Your task to perform on an android device: remove spam from my inbox in the gmail app Image 0: 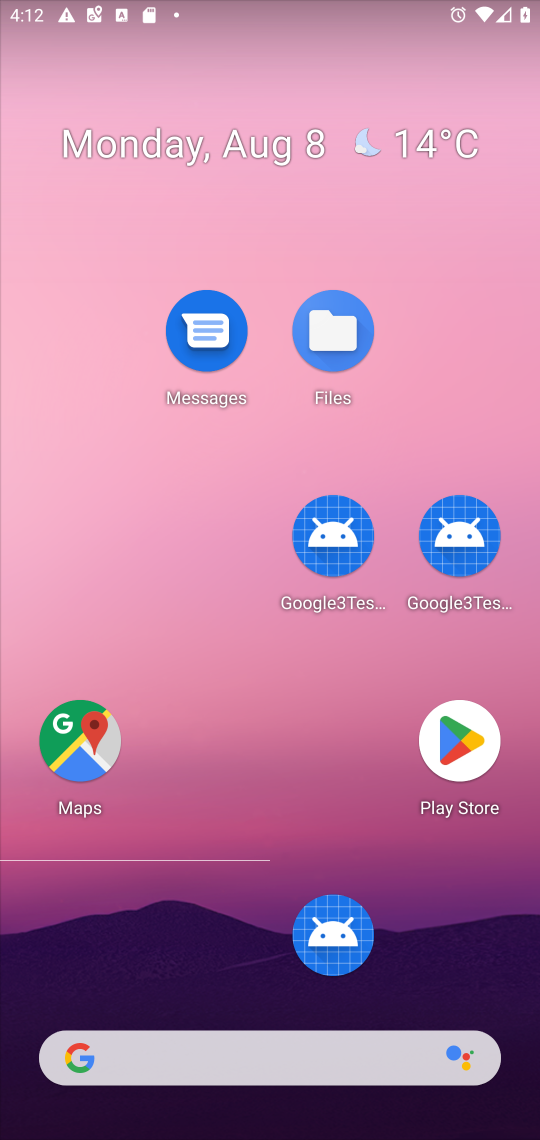
Step 0: drag from (316, 1045) to (358, 0)
Your task to perform on an android device: remove spam from my inbox in the gmail app Image 1: 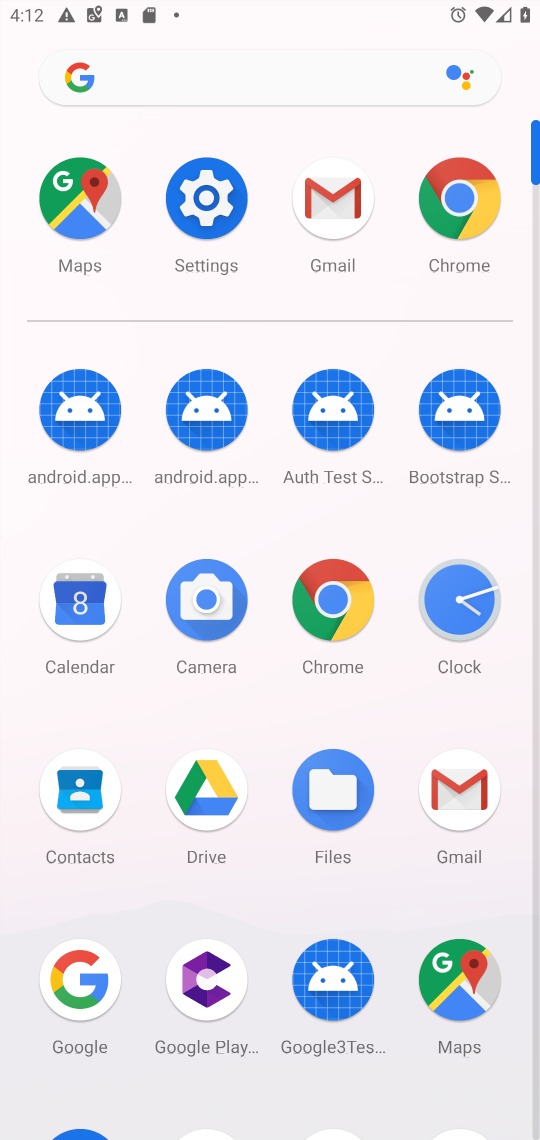
Step 1: click (466, 776)
Your task to perform on an android device: remove spam from my inbox in the gmail app Image 2: 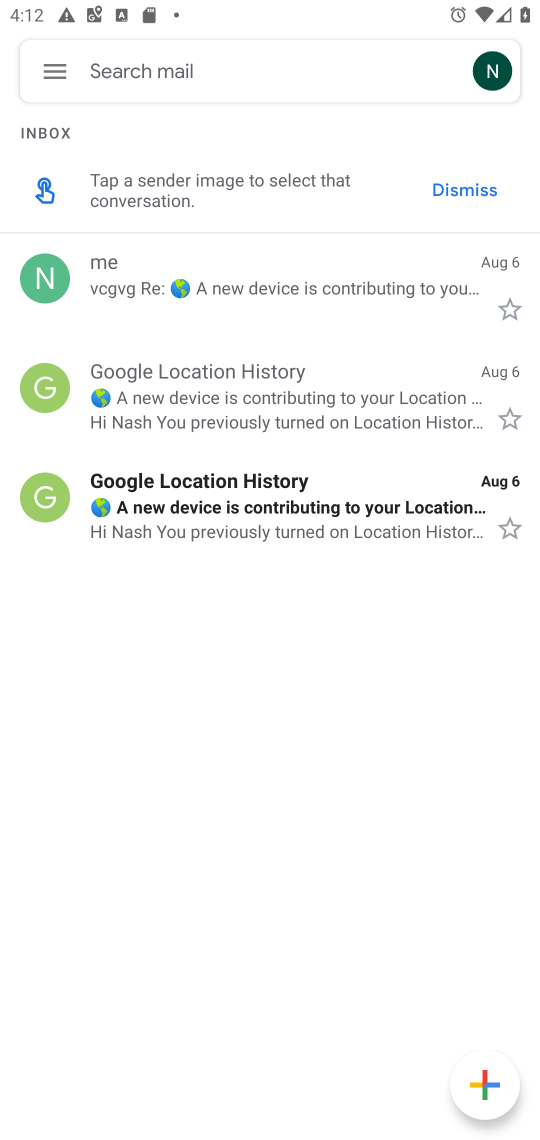
Step 2: click (52, 52)
Your task to perform on an android device: remove spam from my inbox in the gmail app Image 3: 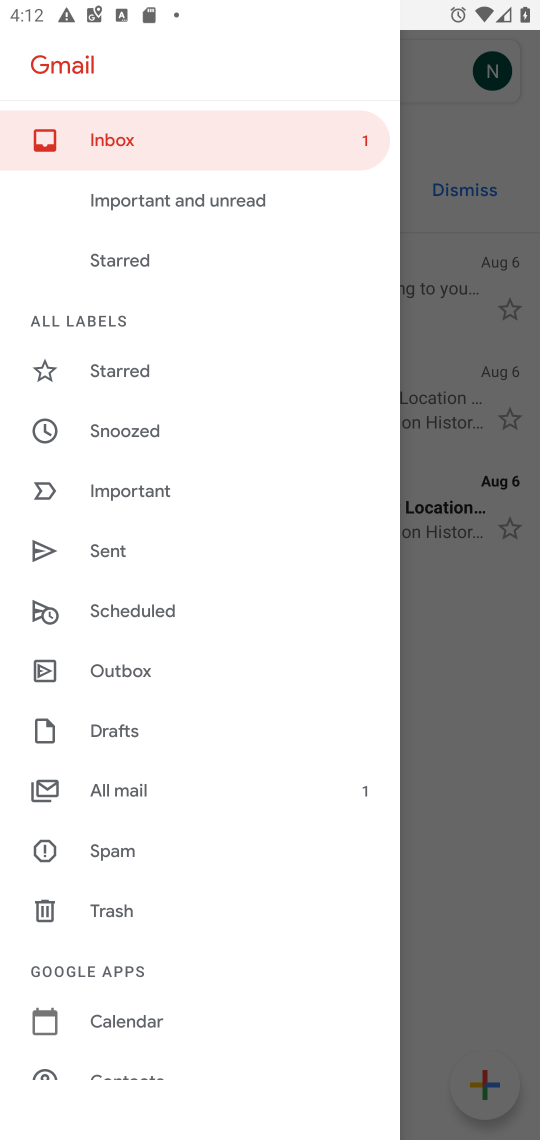
Step 3: click (131, 855)
Your task to perform on an android device: remove spam from my inbox in the gmail app Image 4: 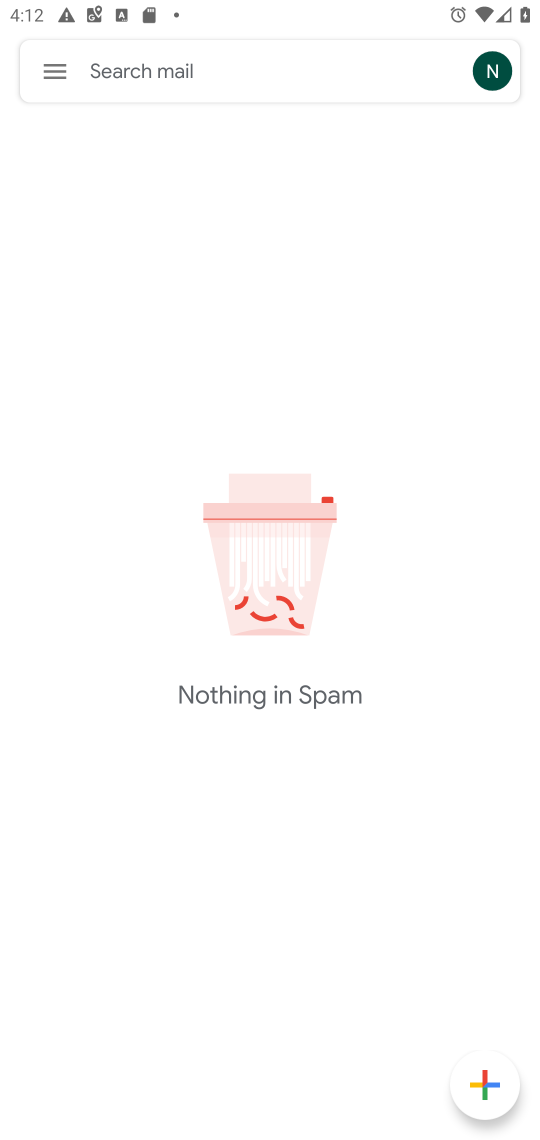
Step 4: task complete